Your task to perform on an android device: empty trash in google photos Image 0: 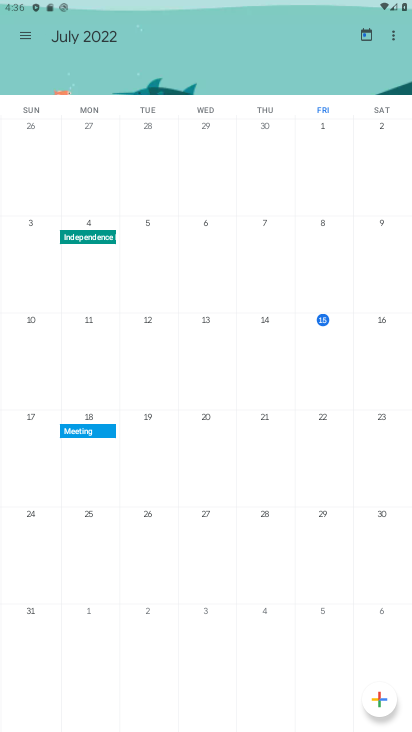
Step 0: press home button
Your task to perform on an android device: empty trash in google photos Image 1: 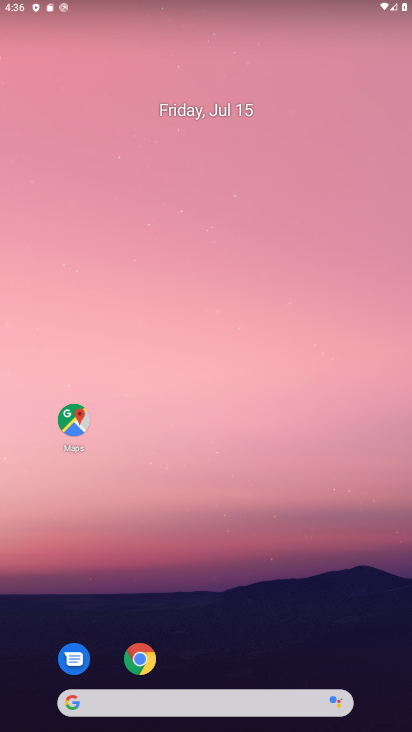
Step 1: drag from (294, 628) to (220, 153)
Your task to perform on an android device: empty trash in google photos Image 2: 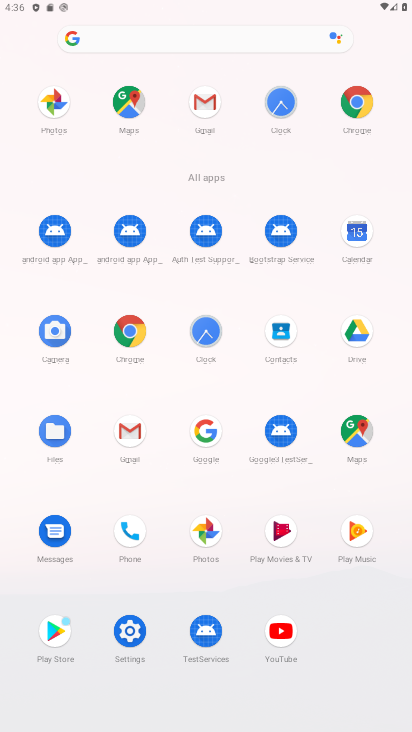
Step 2: click (54, 107)
Your task to perform on an android device: empty trash in google photos Image 3: 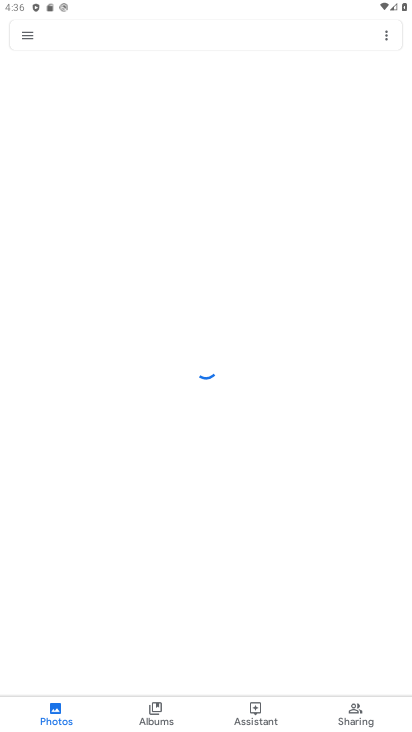
Step 3: click (27, 33)
Your task to perform on an android device: empty trash in google photos Image 4: 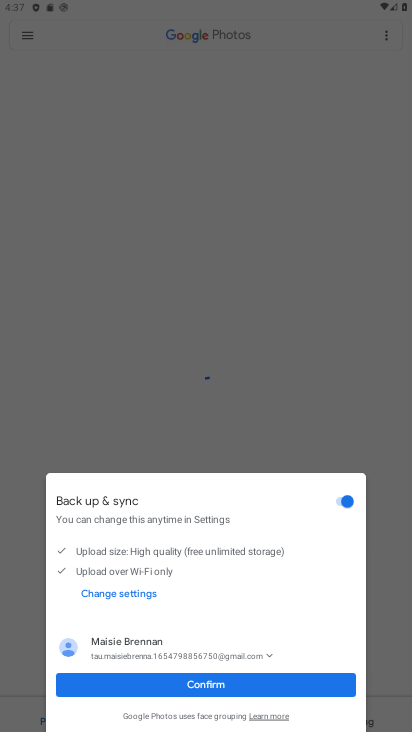
Step 4: click (240, 676)
Your task to perform on an android device: empty trash in google photos Image 5: 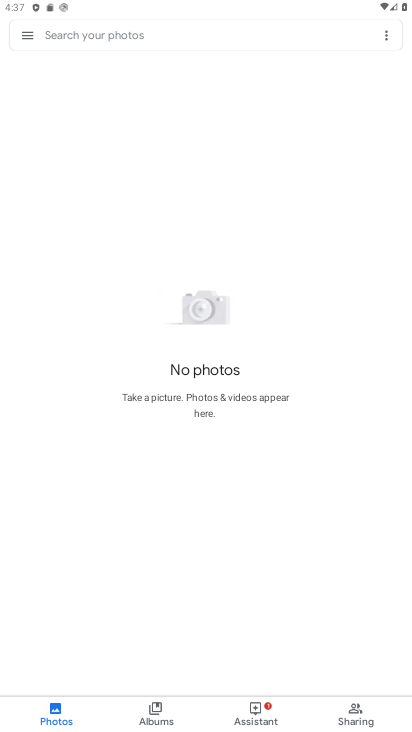
Step 5: click (25, 38)
Your task to perform on an android device: empty trash in google photos Image 6: 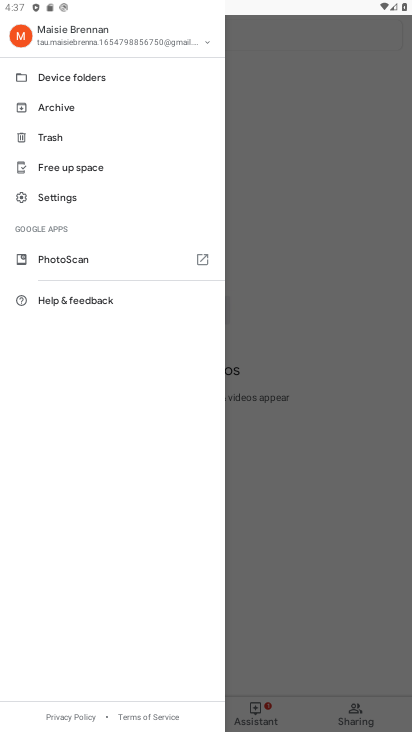
Step 6: click (58, 144)
Your task to perform on an android device: empty trash in google photos Image 7: 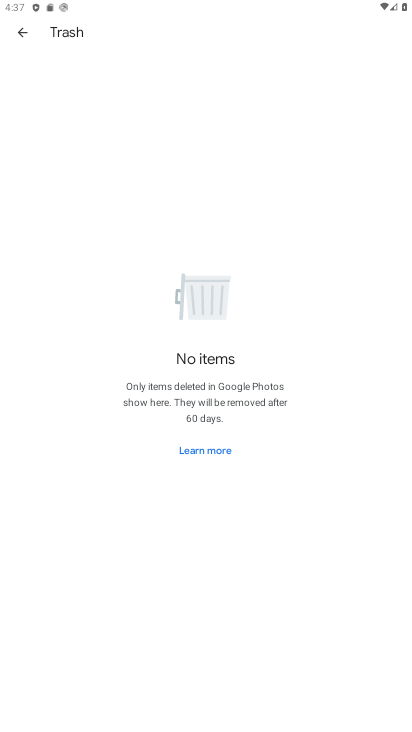
Step 7: task complete